Your task to perform on an android device: turn on showing notifications on the lock screen Image 0: 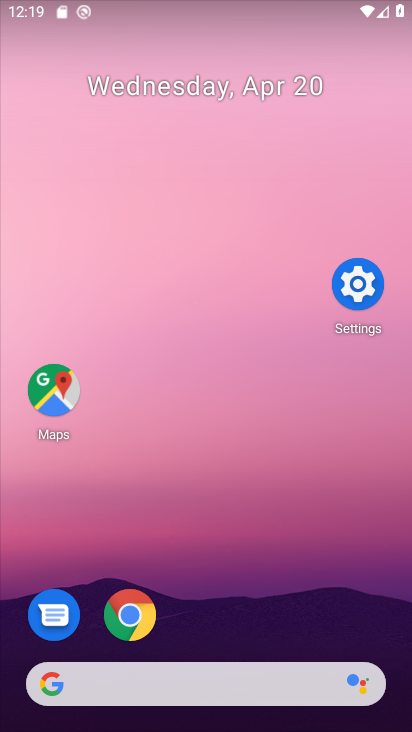
Step 0: drag from (230, 527) to (293, 116)
Your task to perform on an android device: turn on showing notifications on the lock screen Image 1: 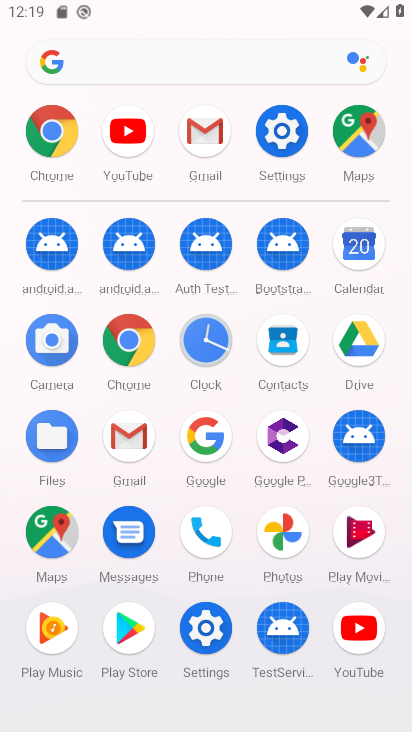
Step 1: click (227, 650)
Your task to perform on an android device: turn on showing notifications on the lock screen Image 2: 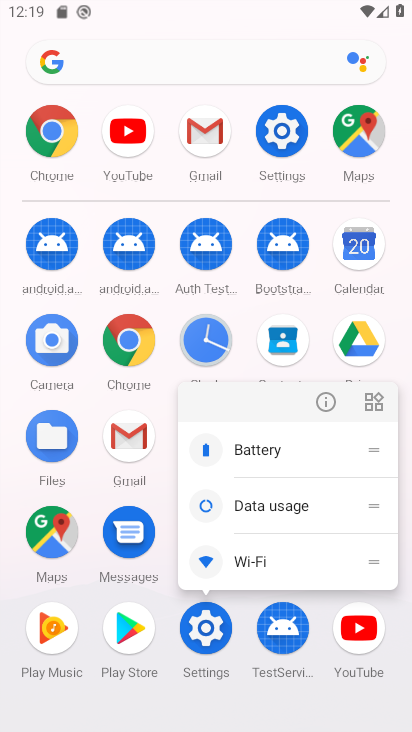
Step 2: click (332, 392)
Your task to perform on an android device: turn on showing notifications on the lock screen Image 3: 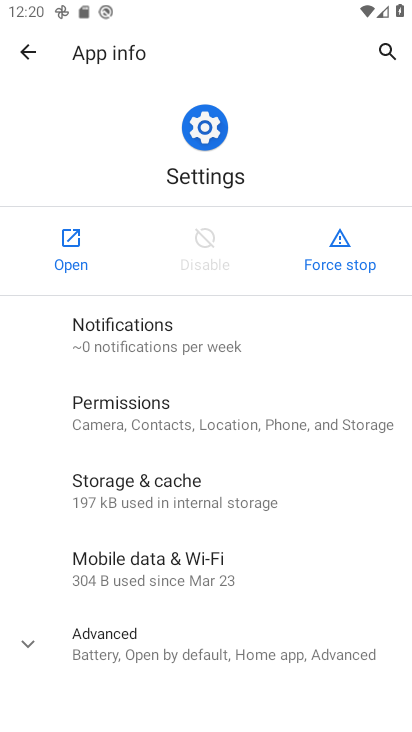
Step 3: click (84, 250)
Your task to perform on an android device: turn on showing notifications on the lock screen Image 4: 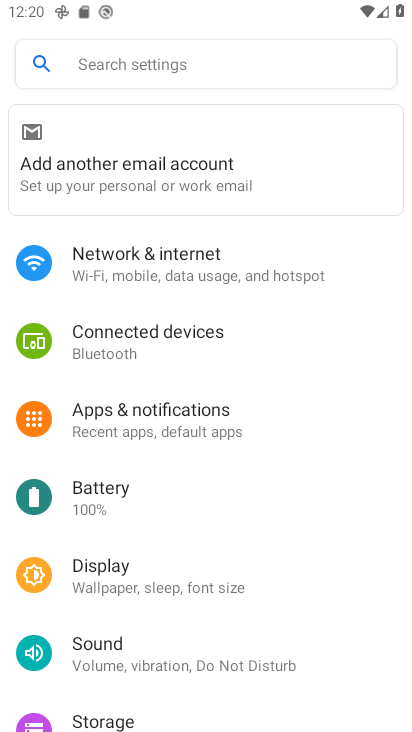
Step 4: click (169, 435)
Your task to perform on an android device: turn on showing notifications on the lock screen Image 5: 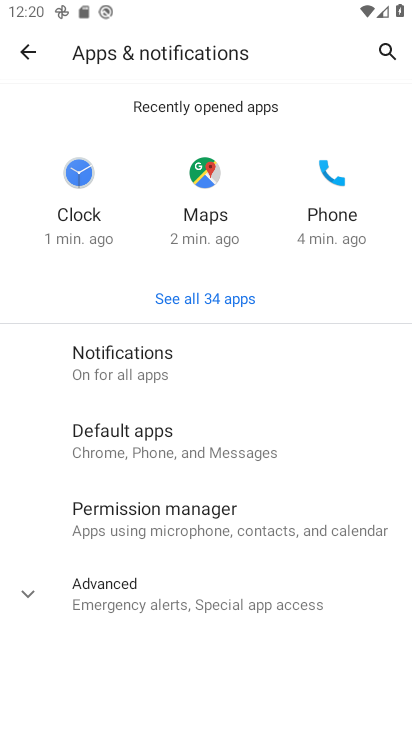
Step 5: click (162, 358)
Your task to perform on an android device: turn on showing notifications on the lock screen Image 6: 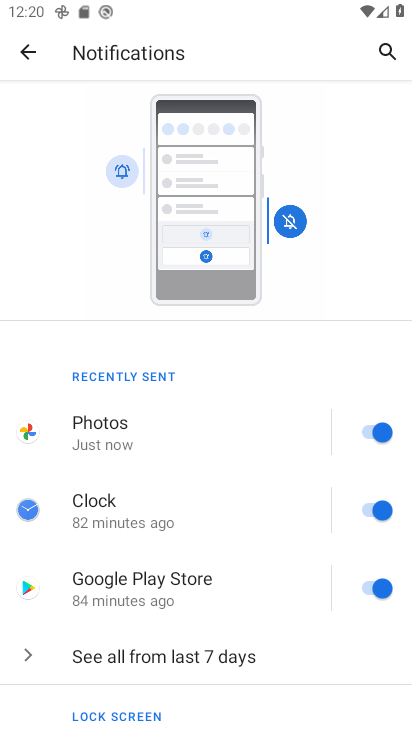
Step 6: drag from (214, 553) to (212, 311)
Your task to perform on an android device: turn on showing notifications on the lock screen Image 7: 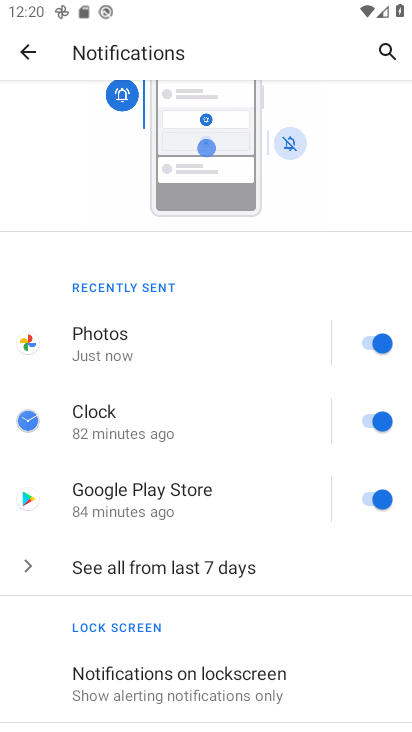
Step 7: click (197, 681)
Your task to perform on an android device: turn on showing notifications on the lock screen Image 8: 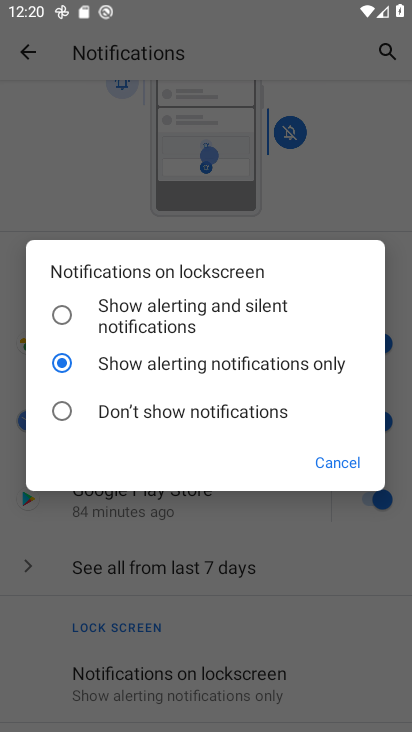
Step 8: task complete